Your task to perform on an android device: Search for Italian restaurants on Maps Image 0: 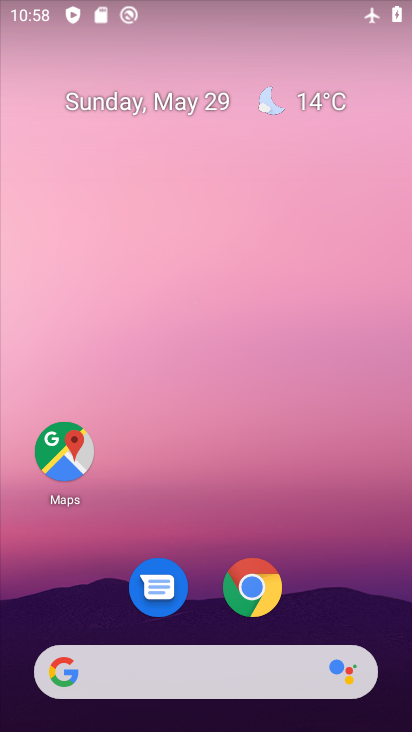
Step 0: drag from (365, 571) to (357, 161)
Your task to perform on an android device: Search for Italian restaurants on Maps Image 1: 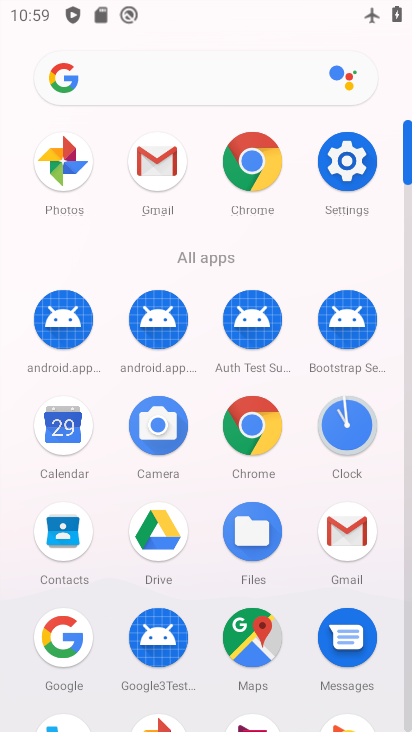
Step 1: drag from (210, 575) to (234, 273)
Your task to perform on an android device: Search for Italian restaurants on Maps Image 2: 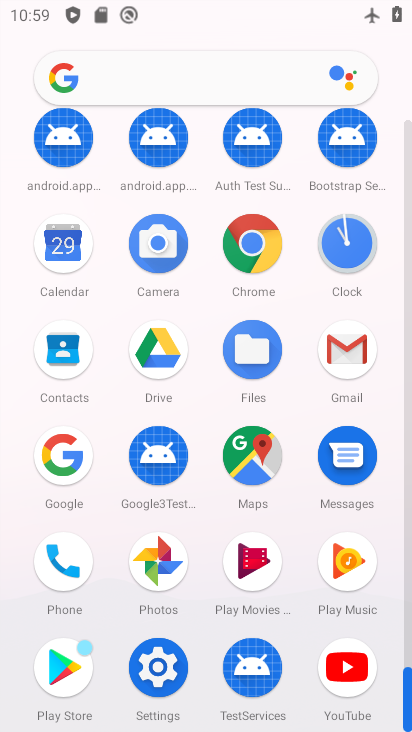
Step 2: click (255, 464)
Your task to perform on an android device: Search for Italian restaurants on Maps Image 3: 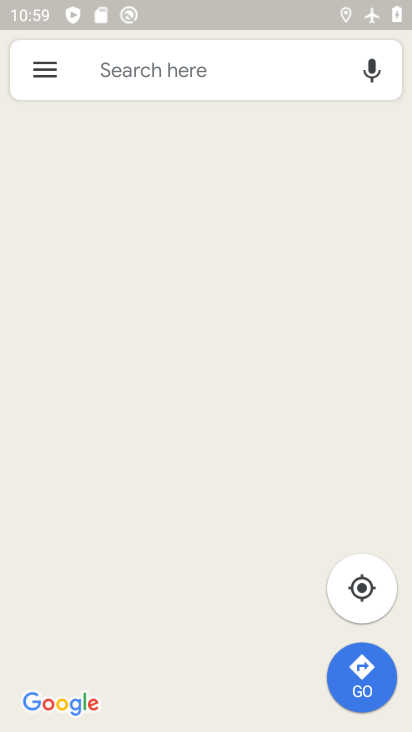
Step 3: click (176, 61)
Your task to perform on an android device: Search for Italian restaurants on Maps Image 4: 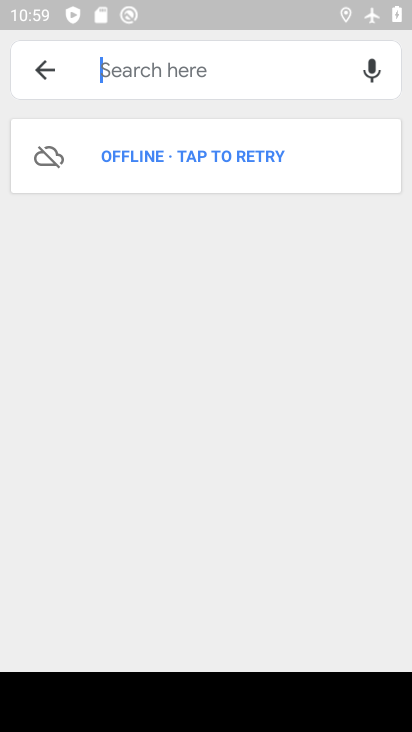
Step 4: type "italian restaurants"
Your task to perform on an android device: Search for Italian restaurants on Maps Image 5: 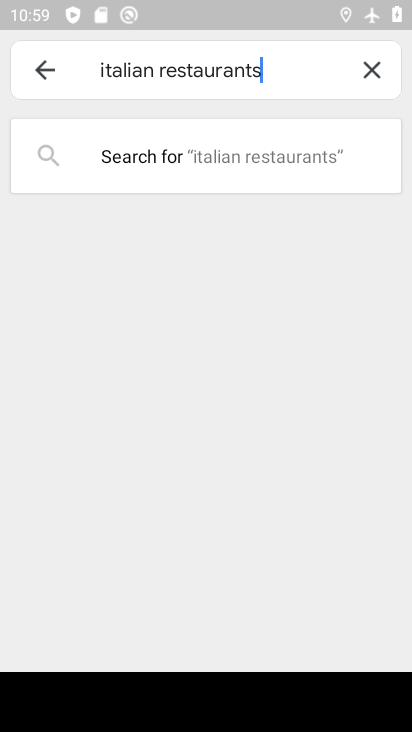
Step 5: task complete